Your task to perform on an android device: create a new album in the google photos Image 0: 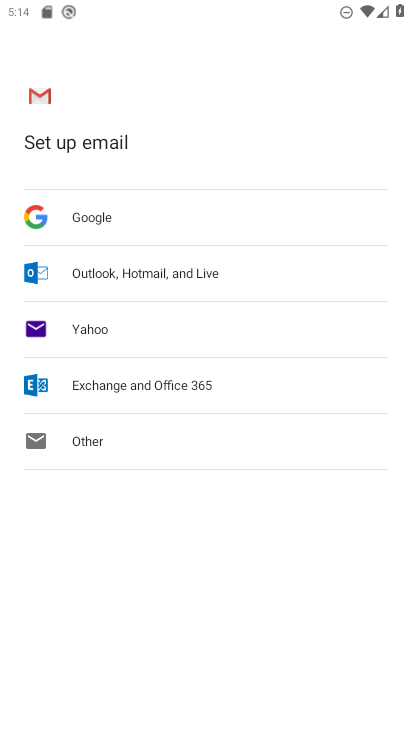
Step 0: press home button
Your task to perform on an android device: create a new album in the google photos Image 1: 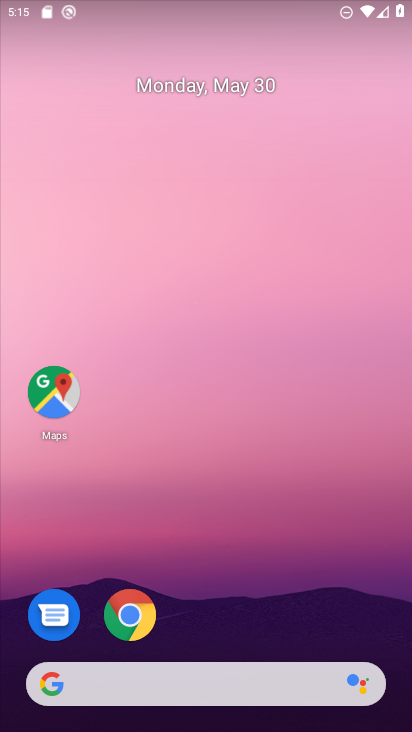
Step 1: drag from (221, 616) to (254, 3)
Your task to perform on an android device: create a new album in the google photos Image 2: 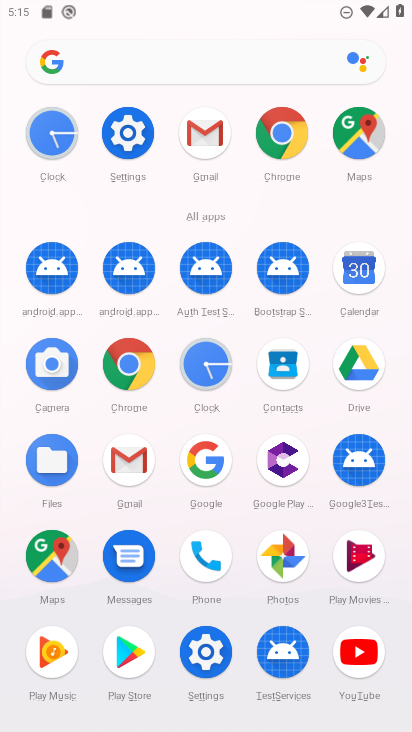
Step 2: click (282, 551)
Your task to perform on an android device: create a new album in the google photos Image 3: 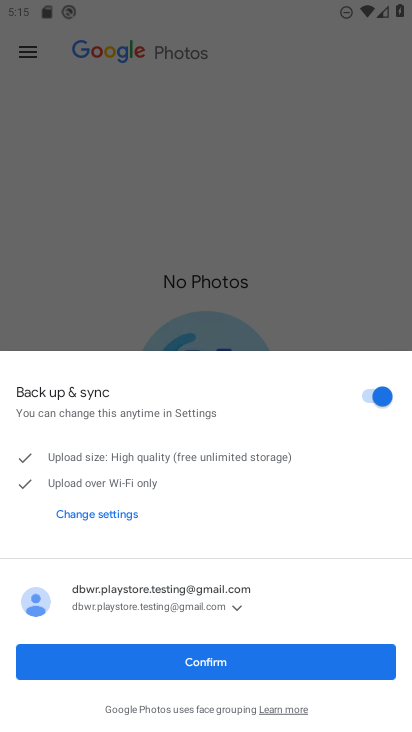
Step 3: click (196, 660)
Your task to perform on an android device: create a new album in the google photos Image 4: 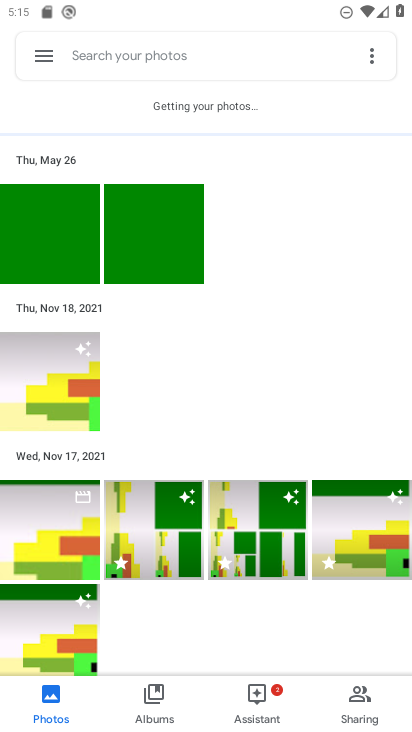
Step 4: click (131, 456)
Your task to perform on an android device: create a new album in the google photos Image 5: 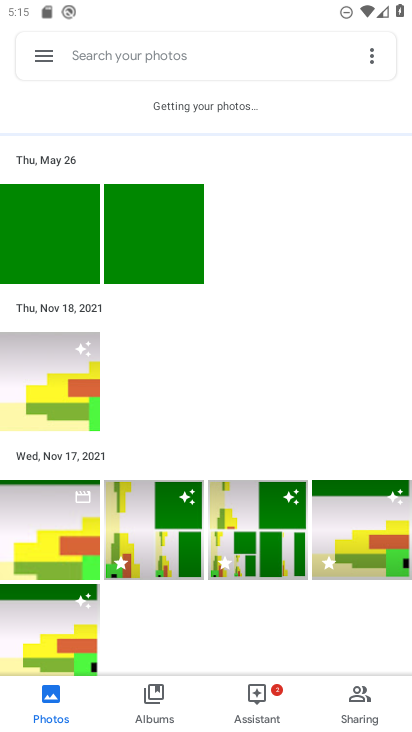
Step 5: click (123, 460)
Your task to perform on an android device: create a new album in the google photos Image 6: 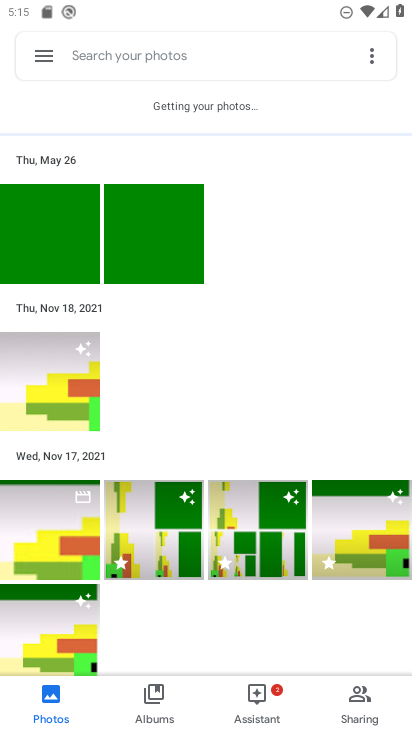
Step 6: click (123, 460)
Your task to perform on an android device: create a new album in the google photos Image 7: 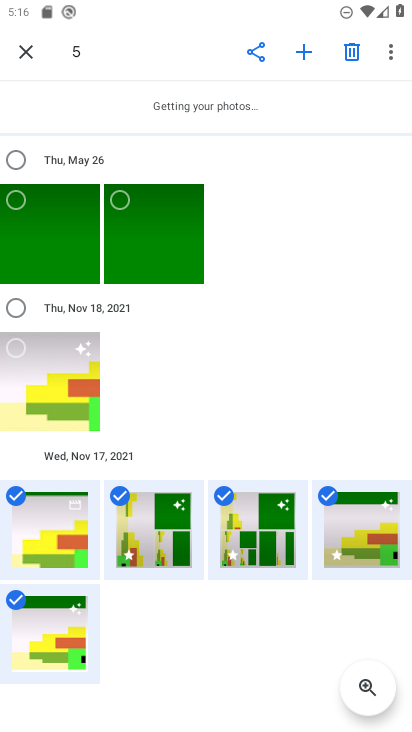
Step 7: click (293, 51)
Your task to perform on an android device: create a new album in the google photos Image 8: 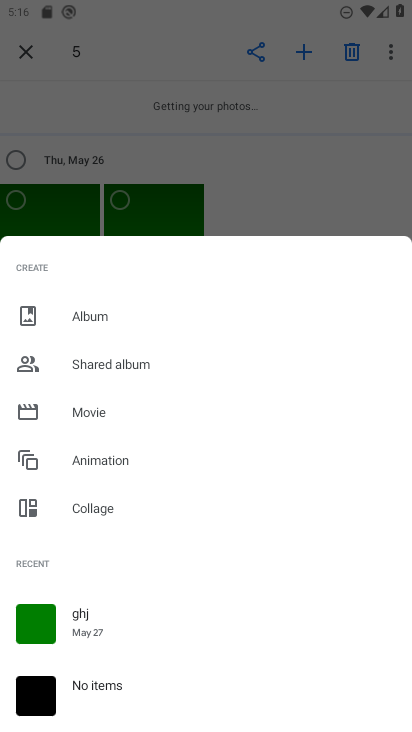
Step 8: click (201, 311)
Your task to perform on an android device: create a new album in the google photos Image 9: 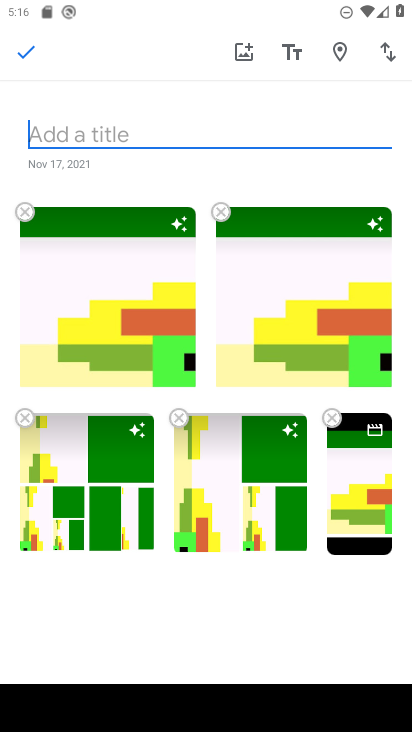
Step 9: type "ji"
Your task to perform on an android device: create a new album in the google photos Image 10: 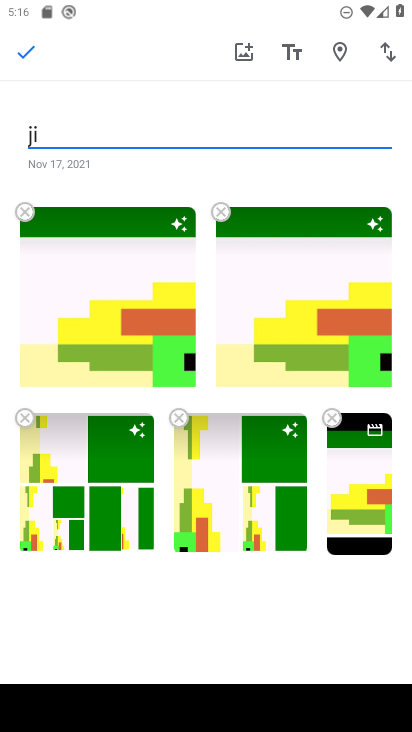
Step 10: click (29, 56)
Your task to perform on an android device: create a new album in the google photos Image 11: 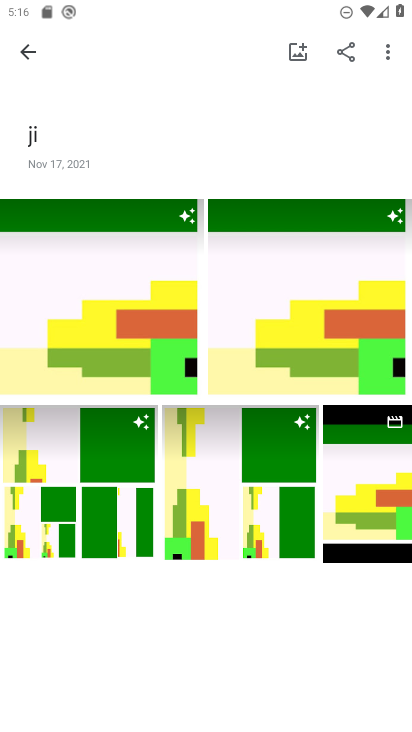
Step 11: task complete